Your task to perform on an android device: Open sound settings Image 0: 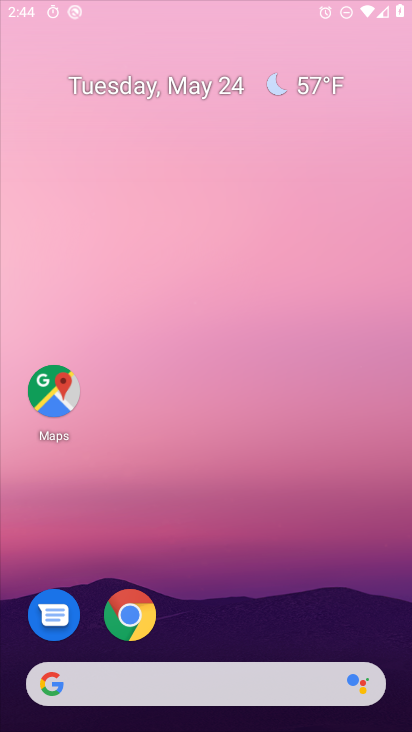
Step 0: drag from (168, 609) to (159, 279)
Your task to perform on an android device: Open sound settings Image 1: 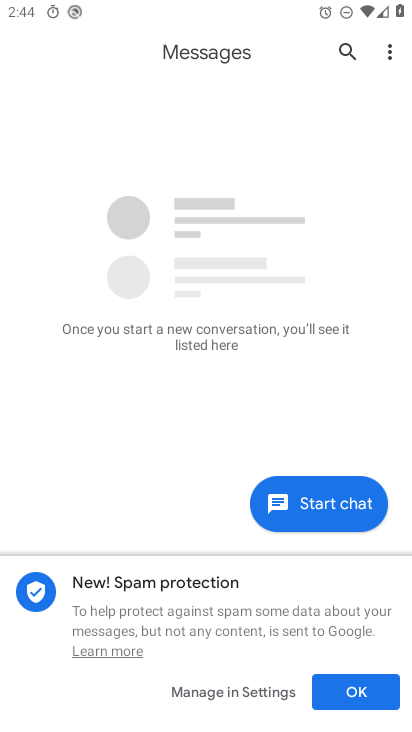
Step 1: press home button
Your task to perform on an android device: Open sound settings Image 2: 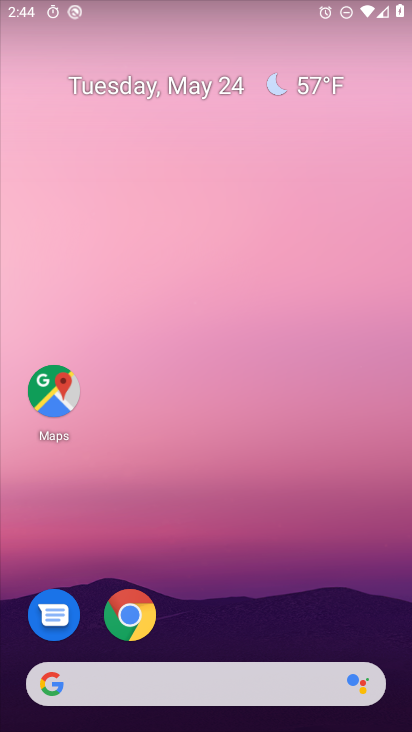
Step 2: drag from (142, 499) to (132, 258)
Your task to perform on an android device: Open sound settings Image 3: 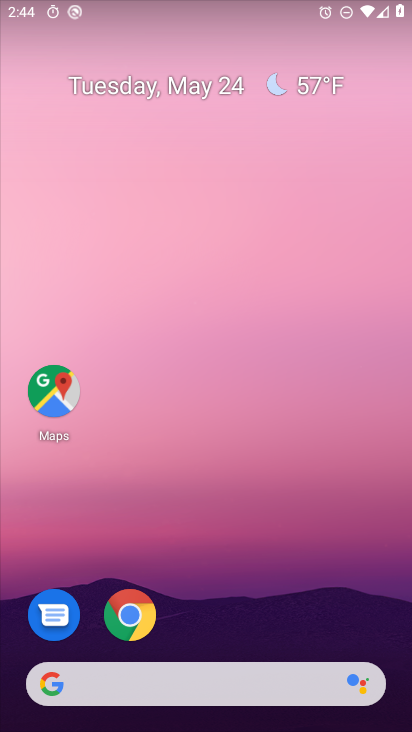
Step 3: drag from (229, 616) to (172, 154)
Your task to perform on an android device: Open sound settings Image 4: 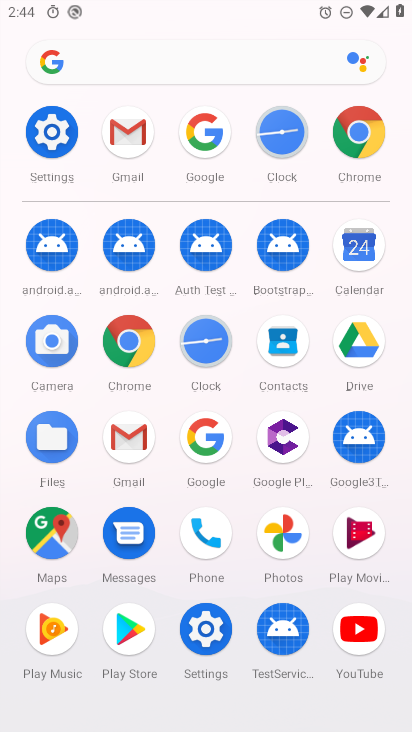
Step 4: click (35, 131)
Your task to perform on an android device: Open sound settings Image 5: 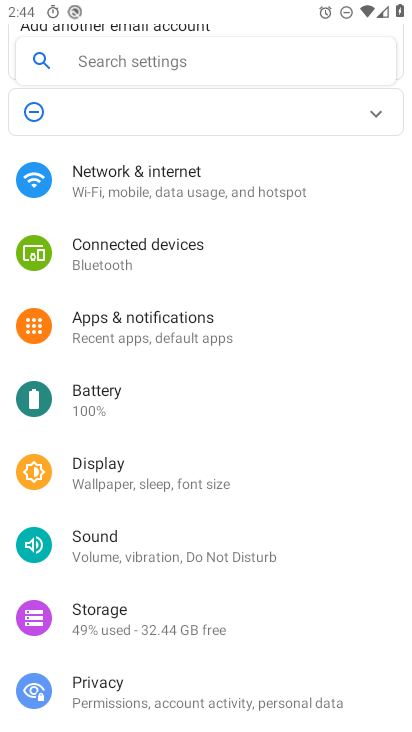
Step 5: click (131, 553)
Your task to perform on an android device: Open sound settings Image 6: 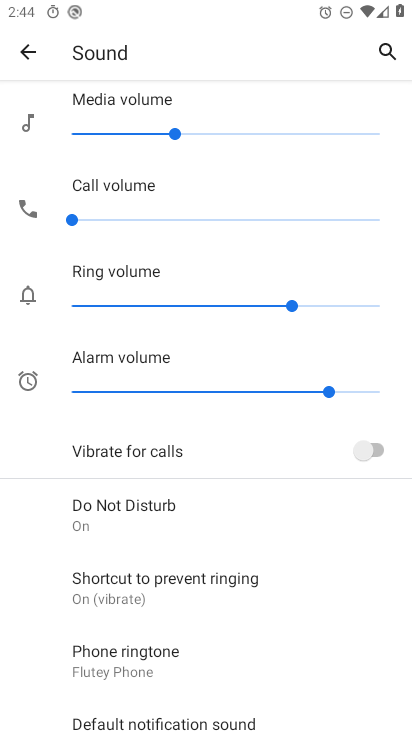
Step 6: task complete